Your task to perform on an android device: turn off priority inbox in the gmail app Image 0: 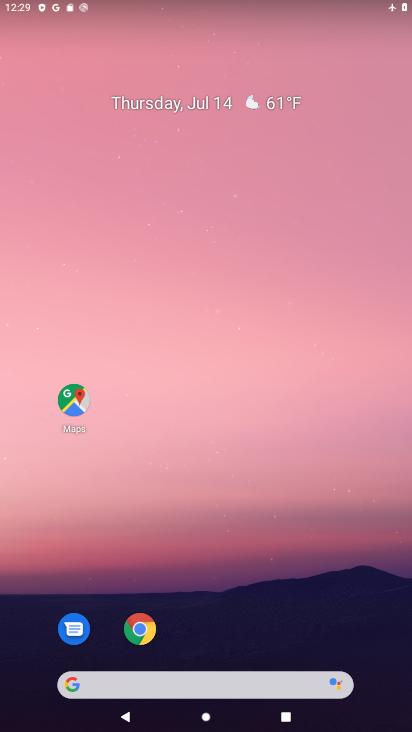
Step 0: drag from (181, 663) to (264, 51)
Your task to perform on an android device: turn off priority inbox in the gmail app Image 1: 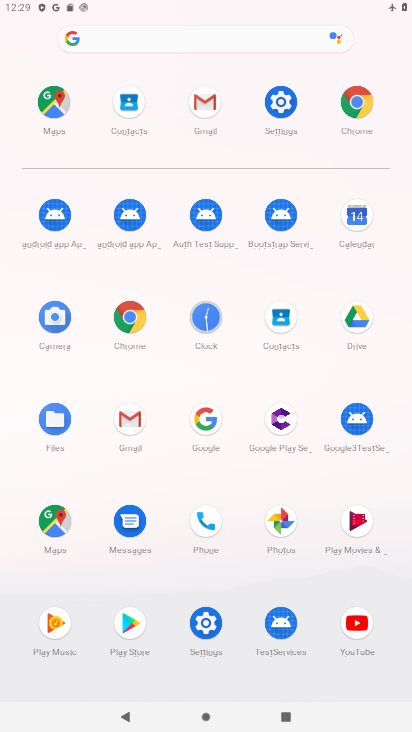
Step 1: click (198, 99)
Your task to perform on an android device: turn off priority inbox in the gmail app Image 2: 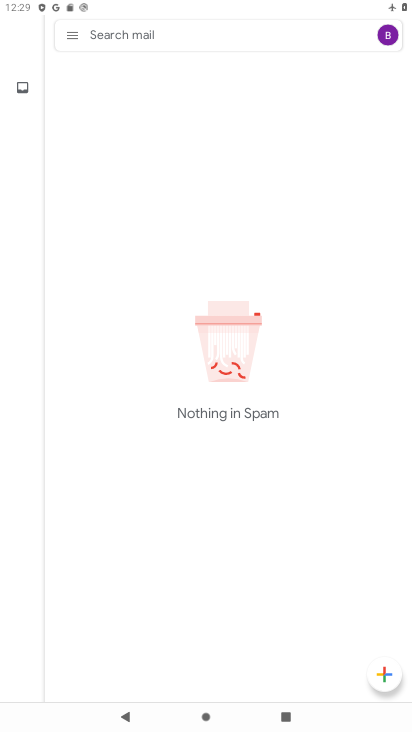
Step 2: click (70, 48)
Your task to perform on an android device: turn off priority inbox in the gmail app Image 3: 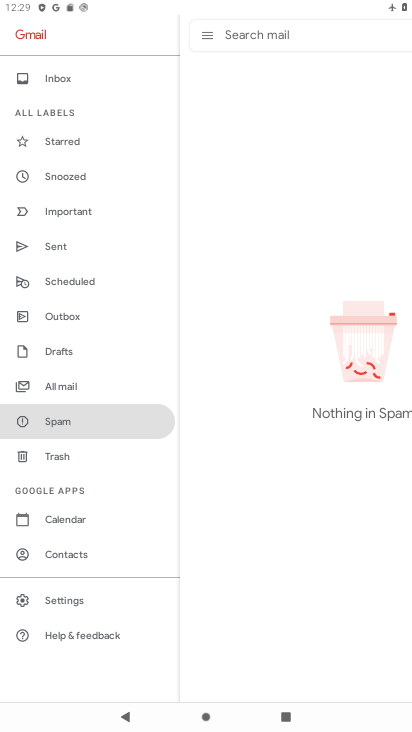
Step 3: click (55, 598)
Your task to perform on an android device: turn off priority inbox in the gmail app Image 4: 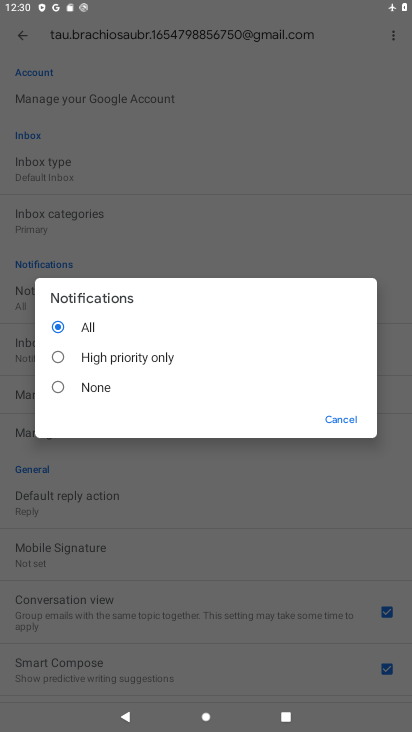
Step 4: click (347, 419)
Your task to perform on an android device: turn off priority inbox in the gmail app Image 5: 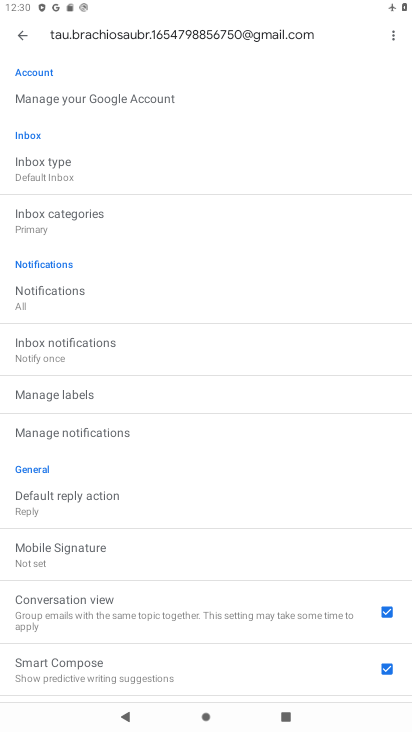
Step 5: drag from (162, 137) to (100, 652)
Your task to perform on an android device: turn off priority inbox in the gmail app Image 6: 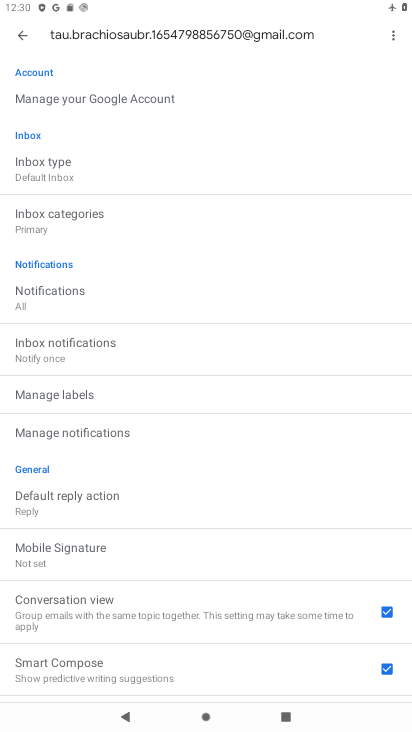
Step 6: click (84, 187)
Your task to perform on an android device: turn off priority inbox in the gmail app Image 7: 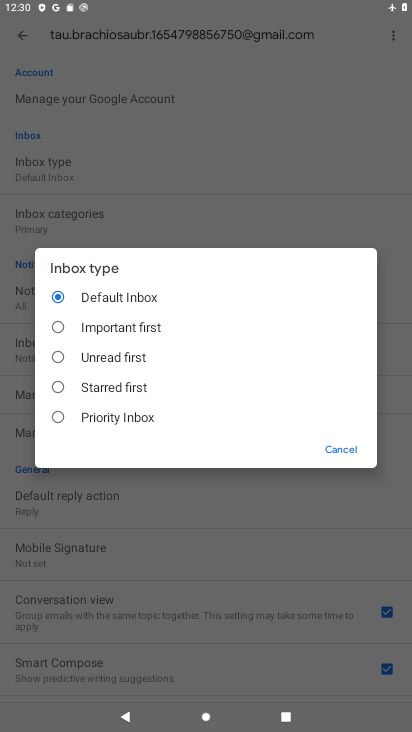
Step 7: click (120, 397)
Your task to perform on an android device: turn off priority inbox in the gmail app Image 8: 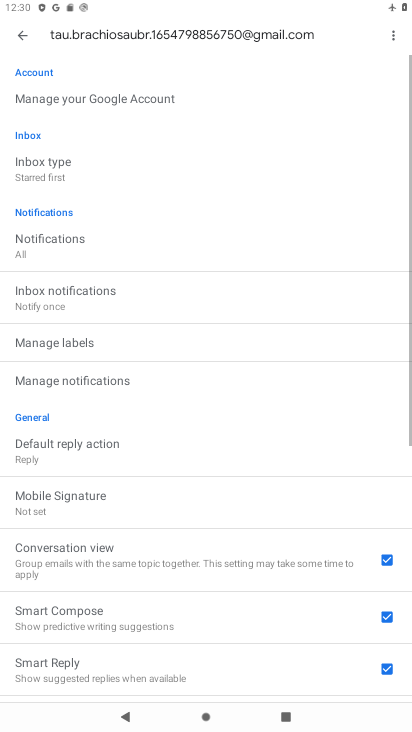
Step 8: task complete